Your task to perform on an android device: toggle translation in the chrome app Image 0: 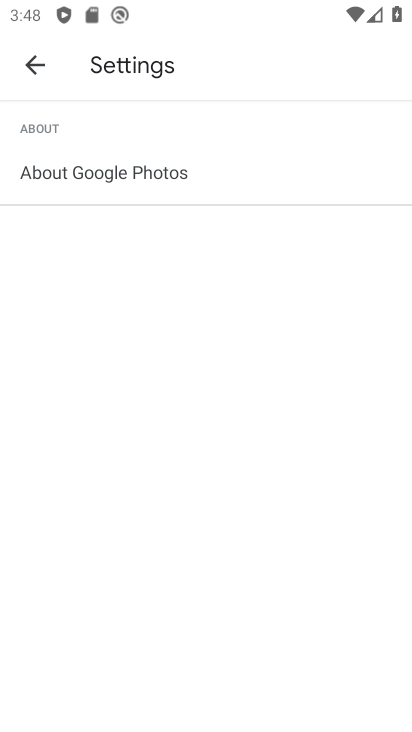
Step 0: click (36, 71)
Your task to perform on an android device: toggle translation in the chrome app Image 1: 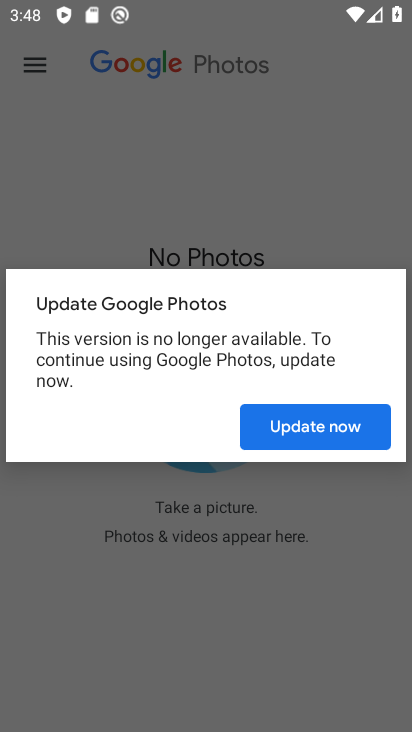
Step 1: press home button
Your task to perform on an android device: toggle translation in the chrome app Image 2: 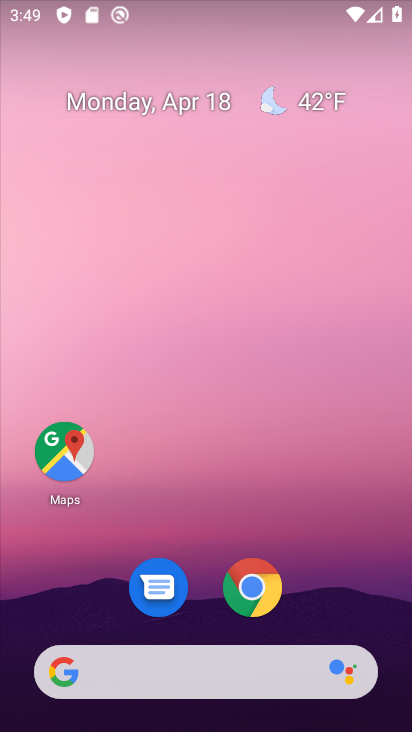
Step 2: click (245, 585)
Your task to perform on an android device: toggle translation in the chrome app Image 3: 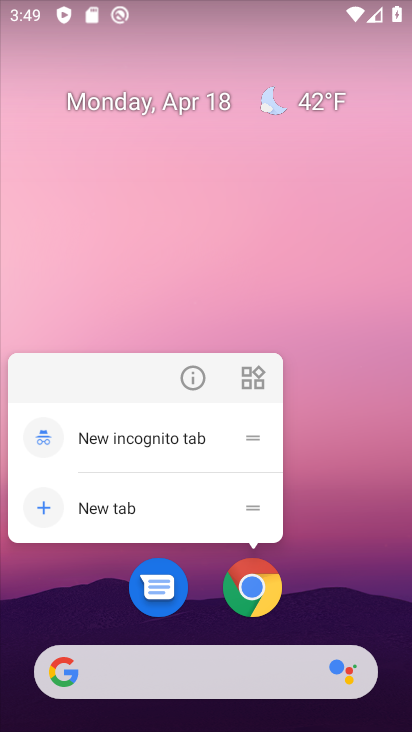
Step 3: click (242, 595)
Your task to perform on an android device: toggle translation in the chrome app Image 4: 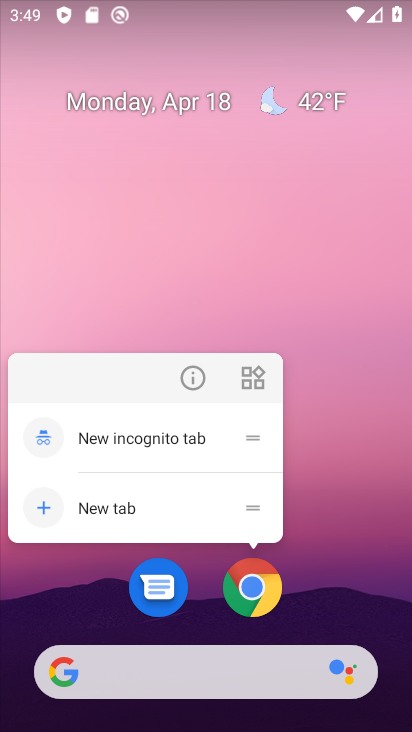
Step 4: click (262, 583)
Your task to perform on an android device: toggle translation in the chrome app Image 5: 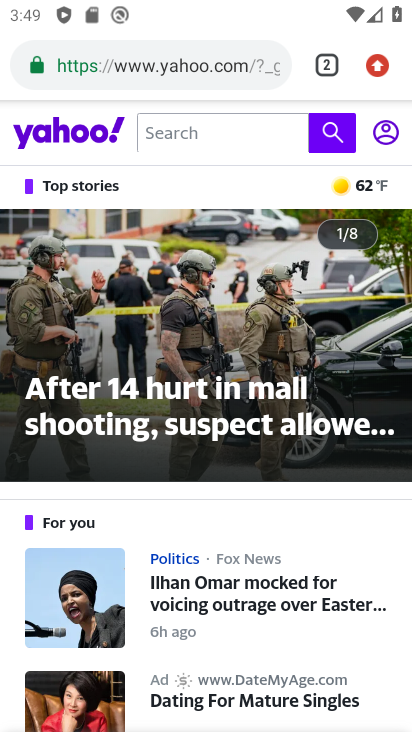
Step 5: click (367, 62)
Your task to perform on an android device: toggle translation in the chrome app Image 6: 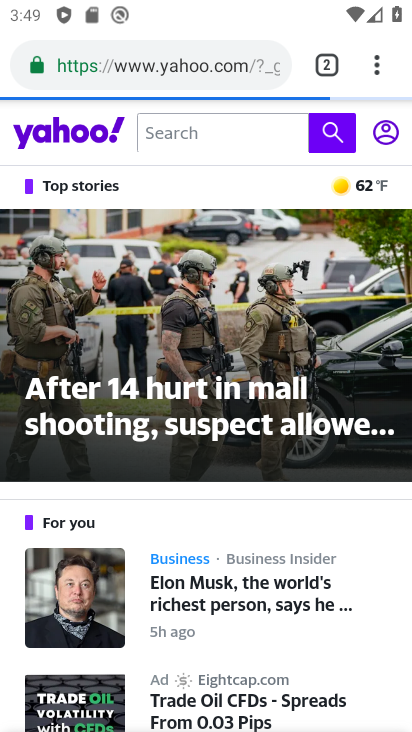
Step 6: click (370, 60)
Your task to perform on an android device: toggle translation in the chrome app Image 7: 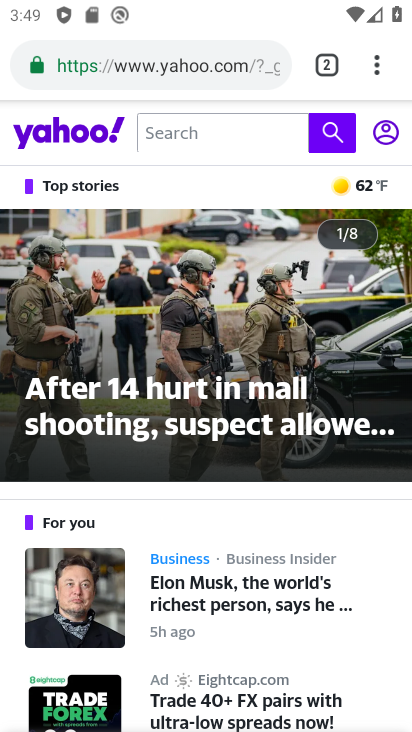
Step 7: click (373, 70)
Your task to perform on an android device: toggle translation in the chrome app Image 8: 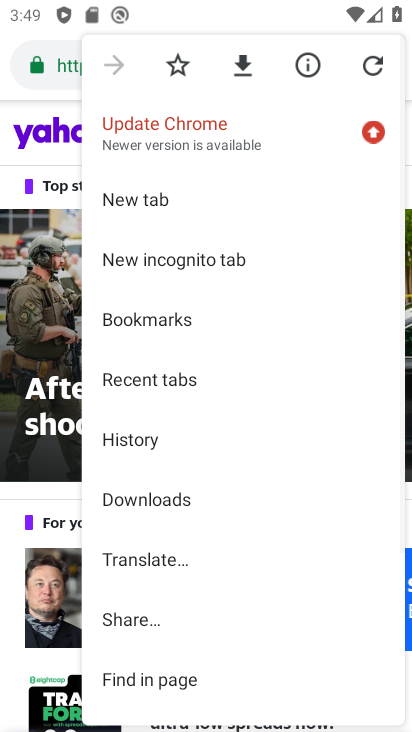
Step 8: drag from (256, 461) to (233, 202)
Your task to perform on an android device: toggle translation in the chrome app Image 9: 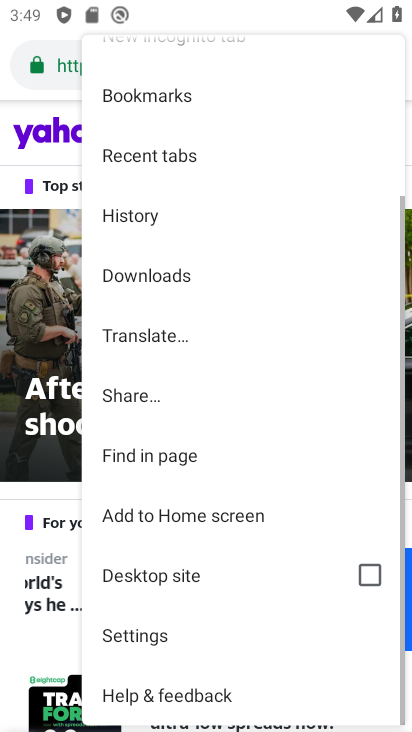
Step 9: click (205, 632)
Your task to perform on an android device: toggle translation in the chrome app Image 10: 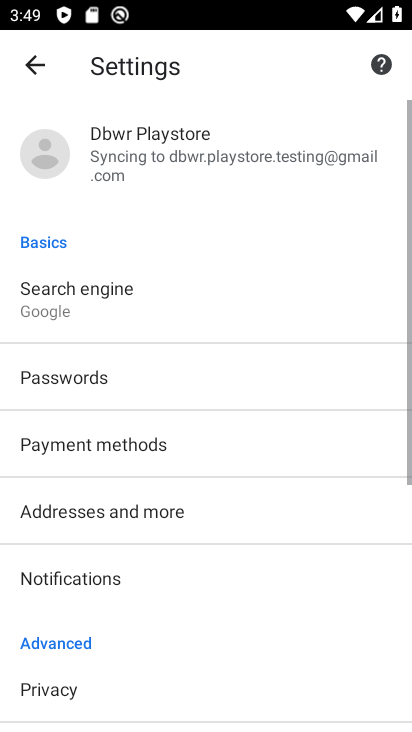
Step 10: drag from (214, 618) to (237, 177)
Your task to perform on an android device: toggle translation in the chrome app Image 11: 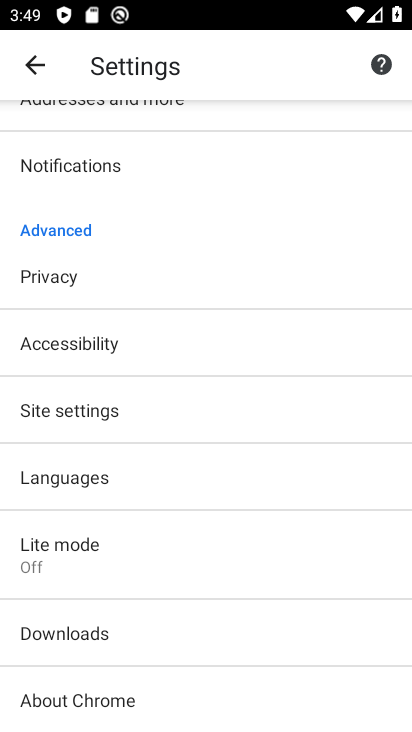
Step 11: click (183, 486)
Your task to perform on an android device: toggle translation in the chrome app Image 12: 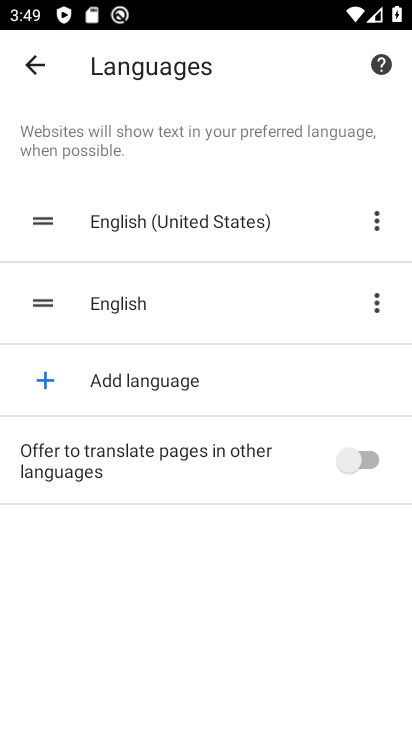
Step 12: click (357, 449)
Your task to perform on an android device: toggle translation in the chrome app Image 13: 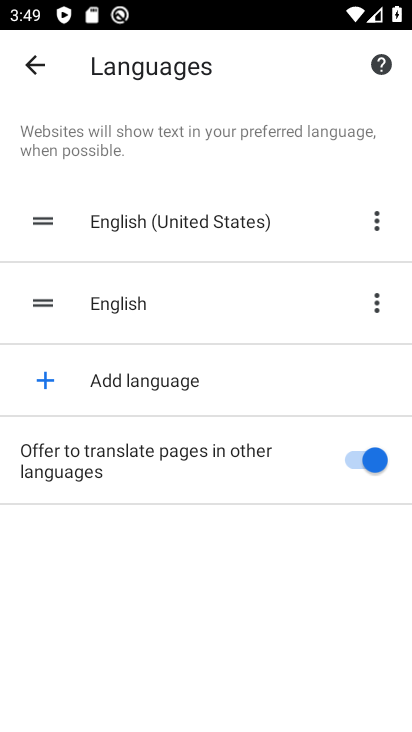
Step 13: task complete